Your task to perform on an android device: Show me recent news Image 0: 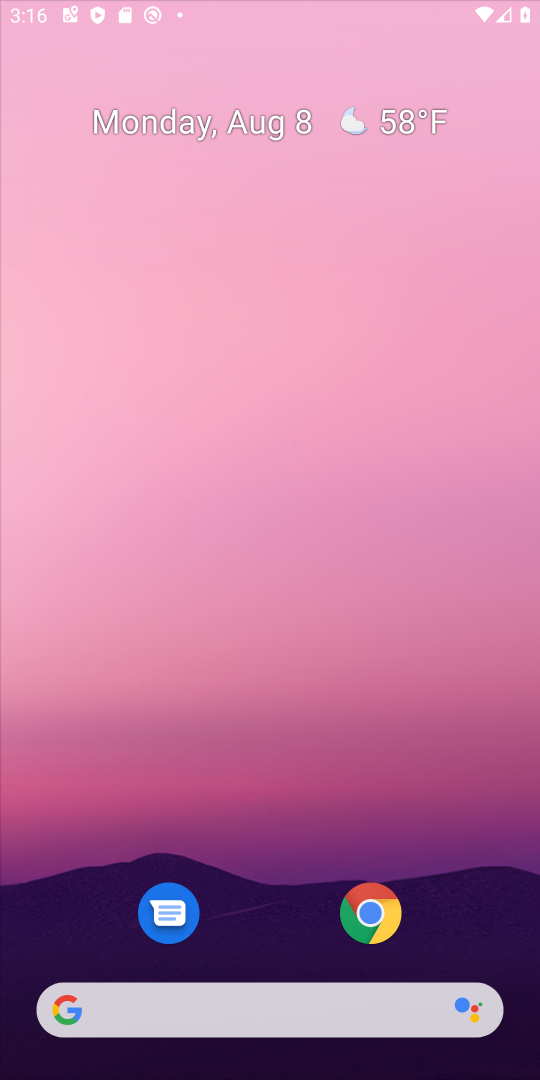
Step 0: press home button
Your task to perform on an android device: Show me recent news Image 1: 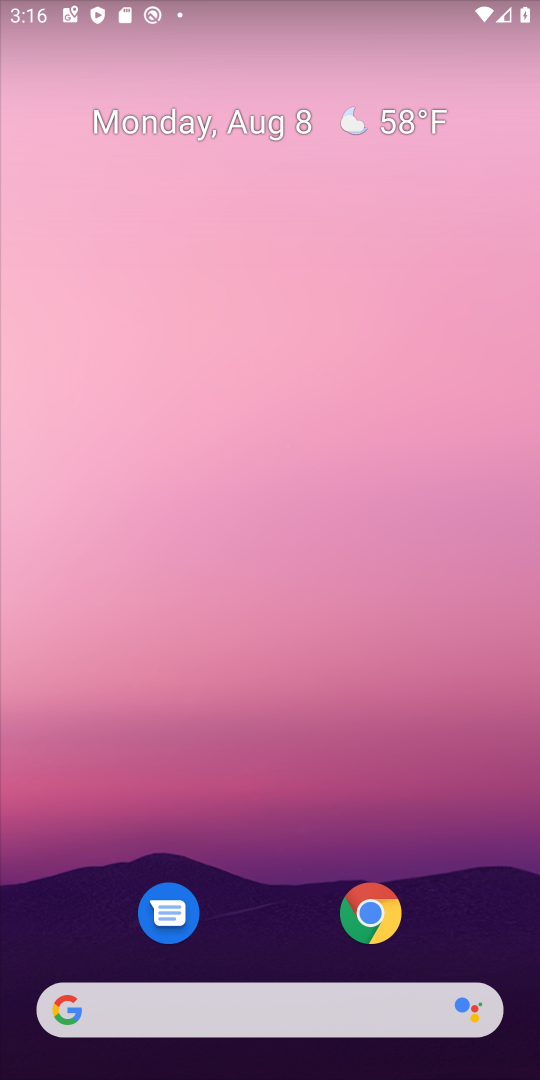
Step 1: task complete